Your task to perform on an android device: Open location settings Image 0: 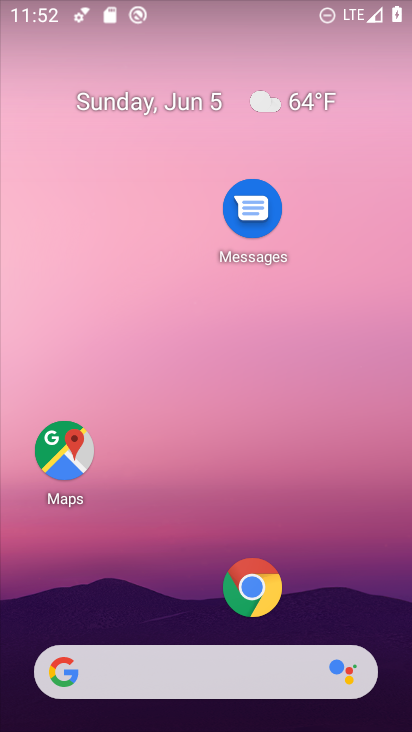
Step 0: drag from (190, 609) to (194, 64)
Your task to perform on an android device: Open location settings Image 1: 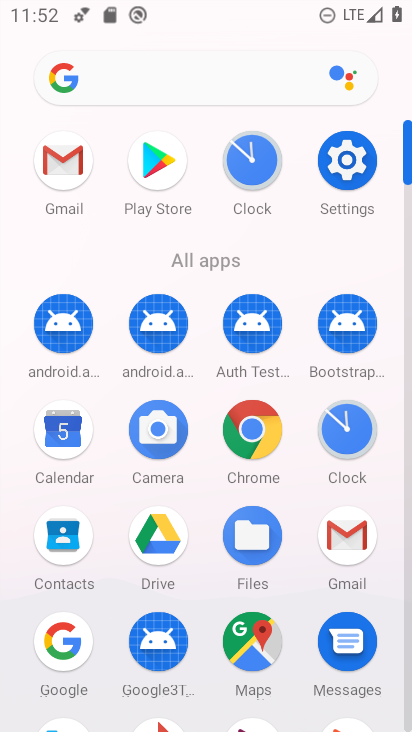
Step 1: click (317, 163)
Your task to perform on an android device: Open location settings Image 2: 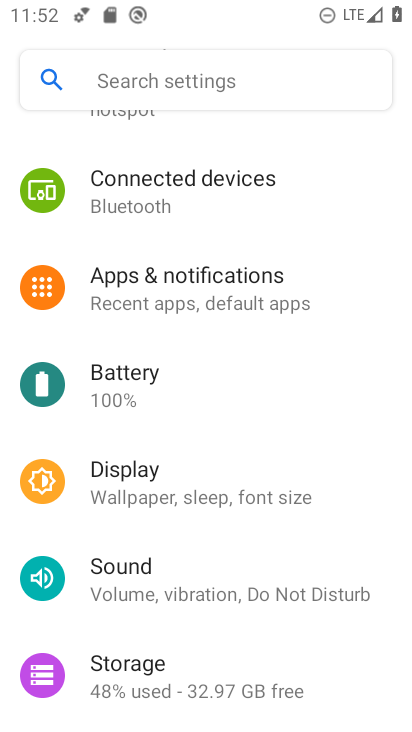
Step 2: drag from (102, 614) to (120, 190)
Your task to perform on an android device: Open location settings Image 3: 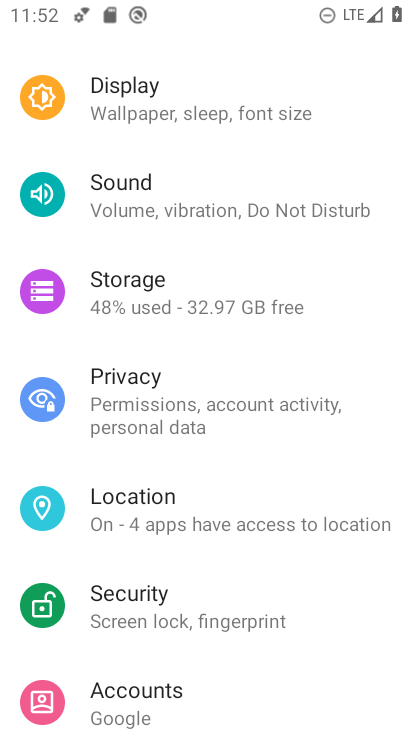
Step 3: click (77, 510)
Your task to perform on an android device: Open location settings Image 4: 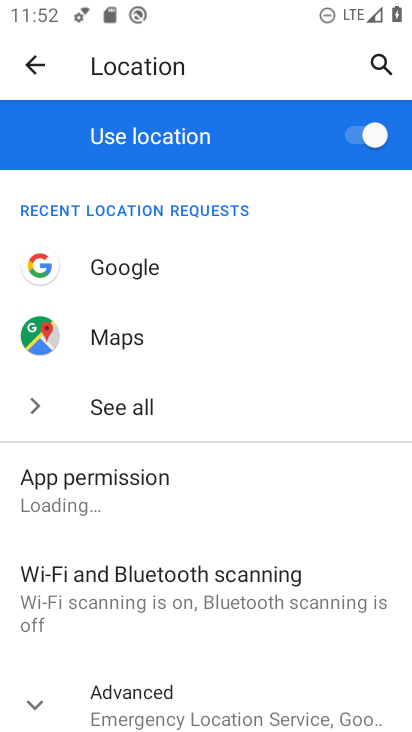
Step 4: task complete